Your task to perform on an android device: star an email in the gmail app Image 0: 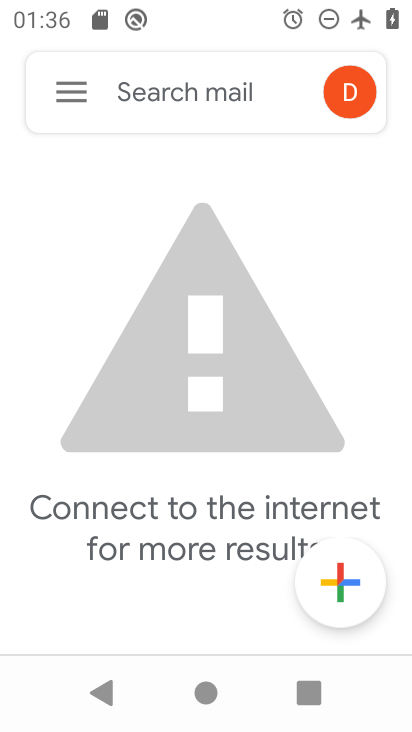
Step 0: press home button
Your task to perform on an android device: star an email in the gmail app Image 1: 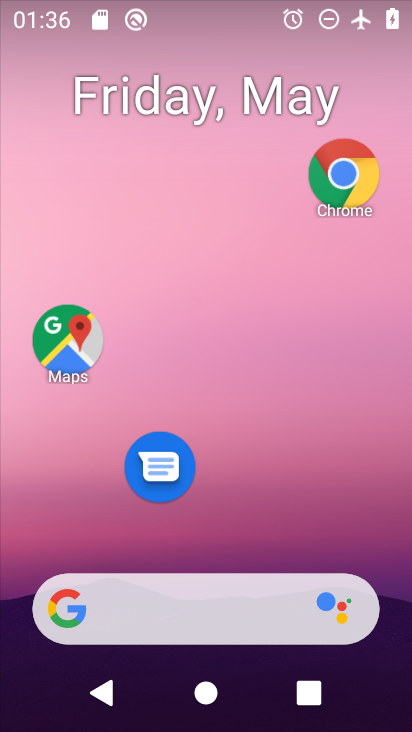
Step 1: drag from (231, 511) to (261, 236)
Your task to perform on an android device: star an email in the gmail app Image 2: 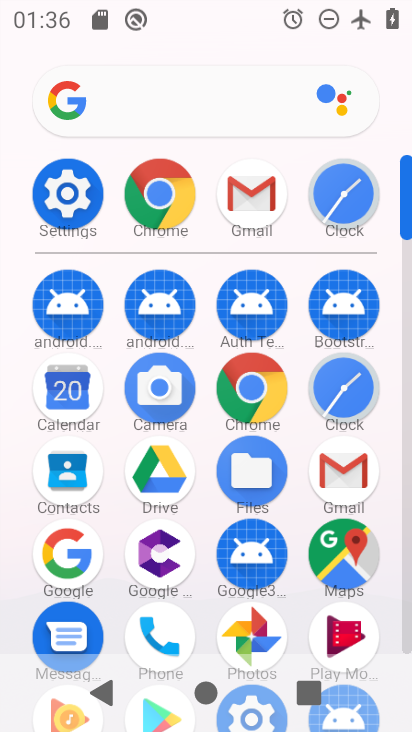
Step 2: click (344, 465)
Your task to perform on an android device: star an email in the gmail app Image 3: 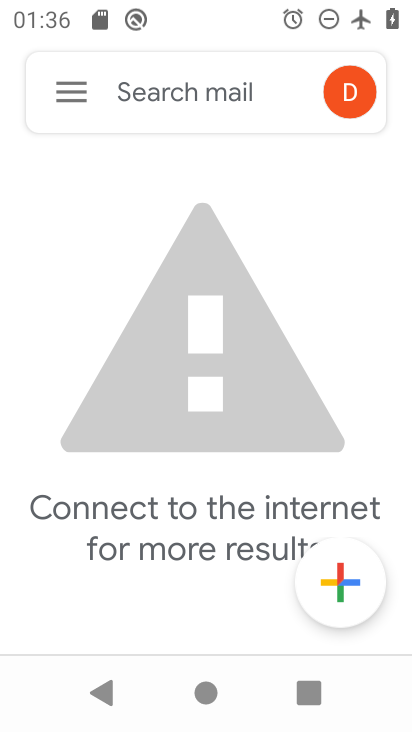
Step 3: click (91, 76)
Your task to perform on an android device: star an email in the gmail app Image 4: 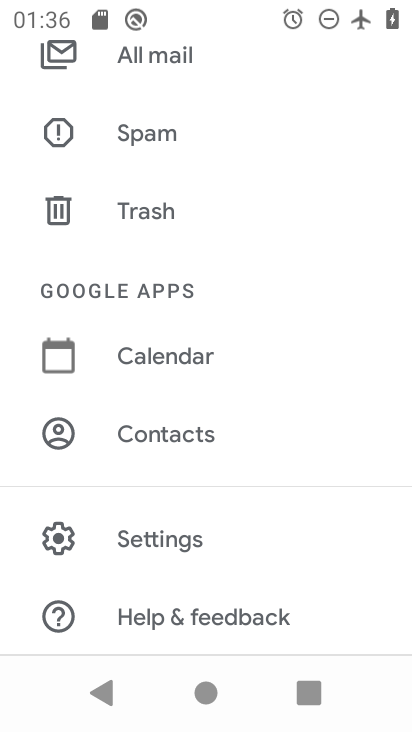
Step 4: drag from (198, 177) to (193, 563)
Your task to perform on an android device: star an email in the gmail app Image 5: 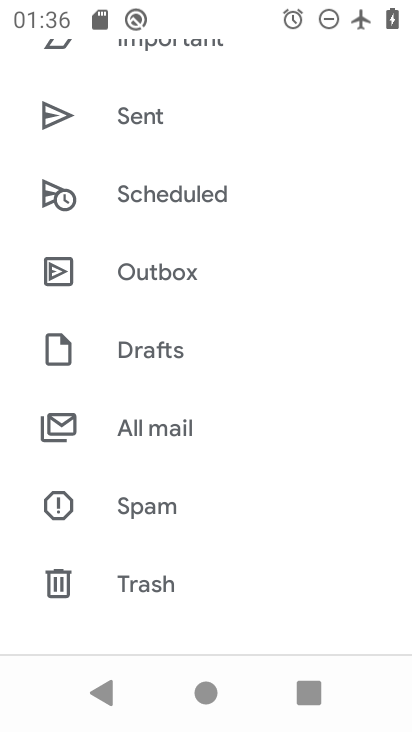
Step 5: drag from (181, 111) to (192, 512)
Your task to perform on an android device: star an email in the gmail app Image 6: 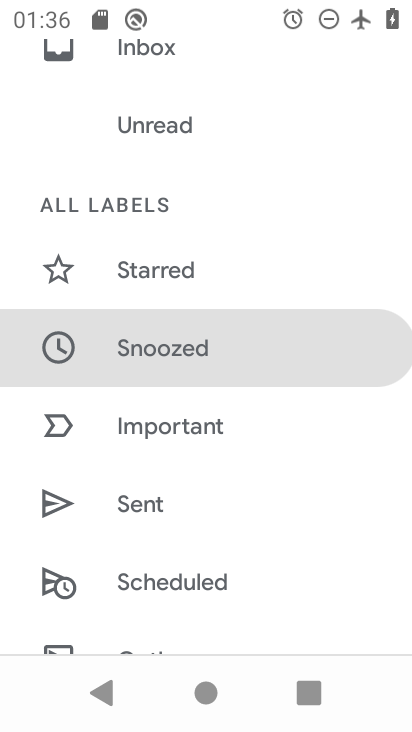
Step 6: click (168, 285)
Your task to perform on an android device: star an email in the gmail app Image 7: 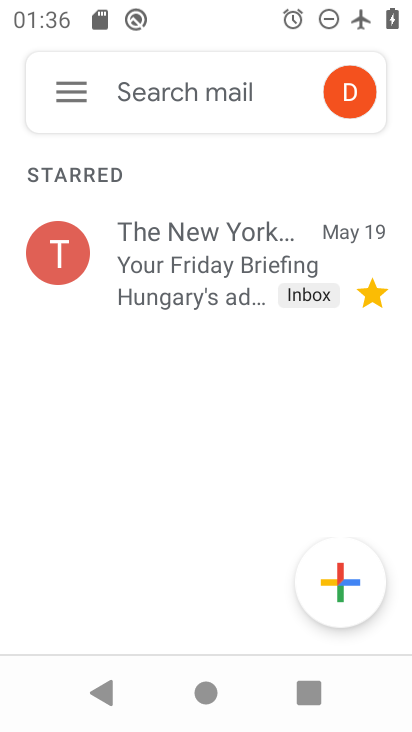
Step 7: task complete